Your task to perform on an android device: Open Android settings Image 0: 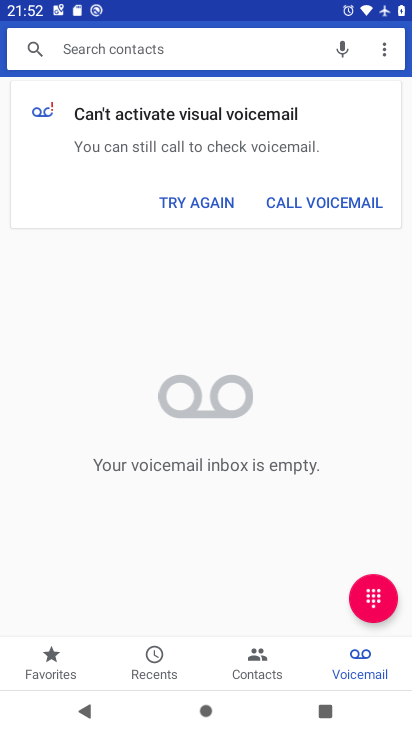
Step 0: press home button
Your task to perform on an android device: Open Android settings Image 1: 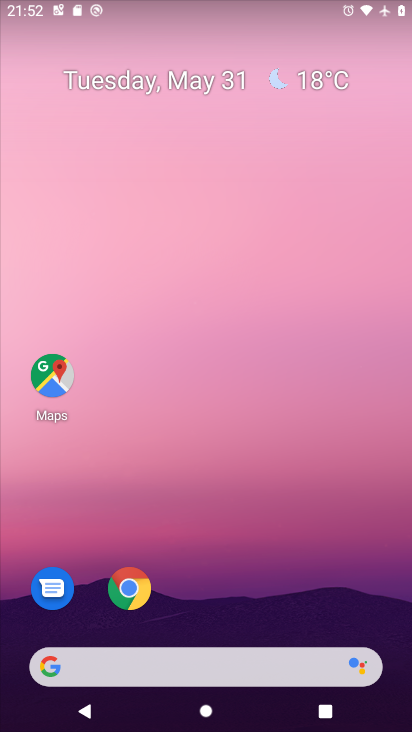
Step 1: drag from (181, 661) to (321, 69)
Your task to perform on an android device: Open Android settings Image 2: 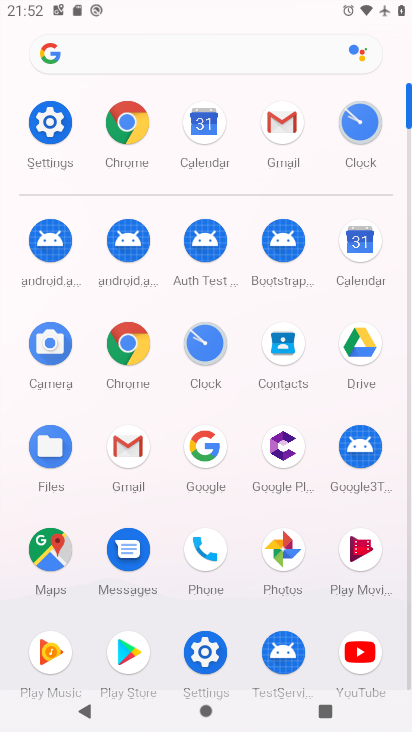
Step 2: click (50, 126)
Your task to perform on an android device: Open Android settings Image 3: 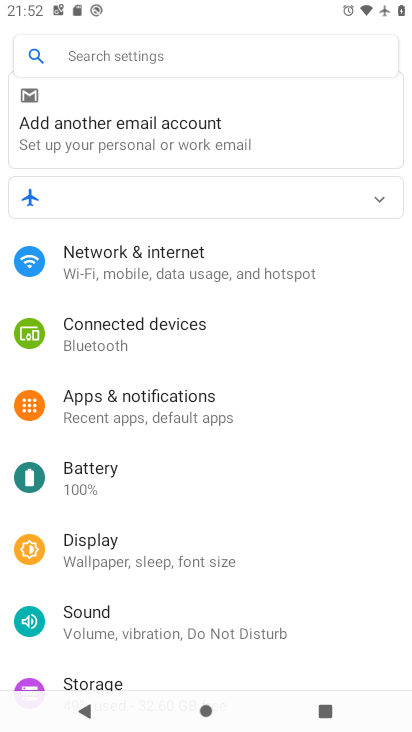
Step 3: task complete